Your task to perform on an android device: set the stopwatch Image 0: 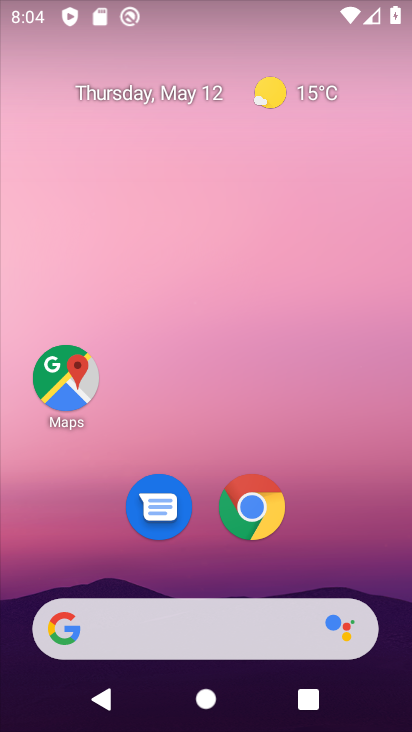
Step 0: drag from (217, 582) to (299, 162)
Your task to perform on an android device: set the stopwatch Image 1: 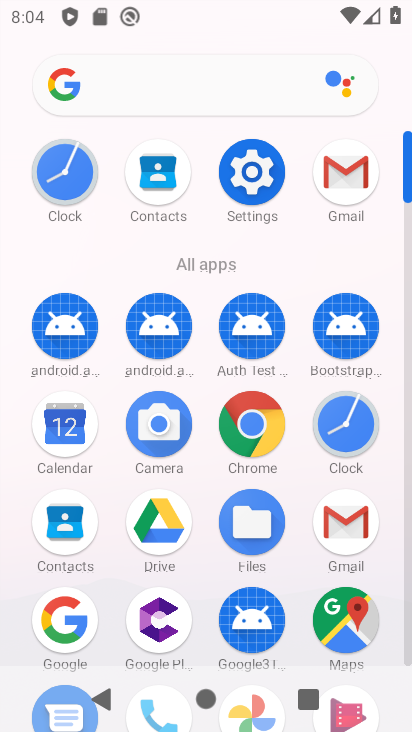
Step 1: click (346, 426)
Your task to perform on an android device: set the stopwatch Image 2: 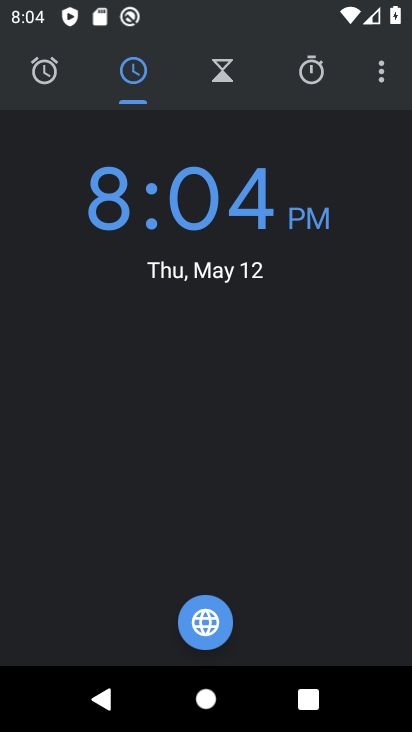
Step 2: click (303, 85)
Your task to perform on an android device: set the stopwatch Image 3: 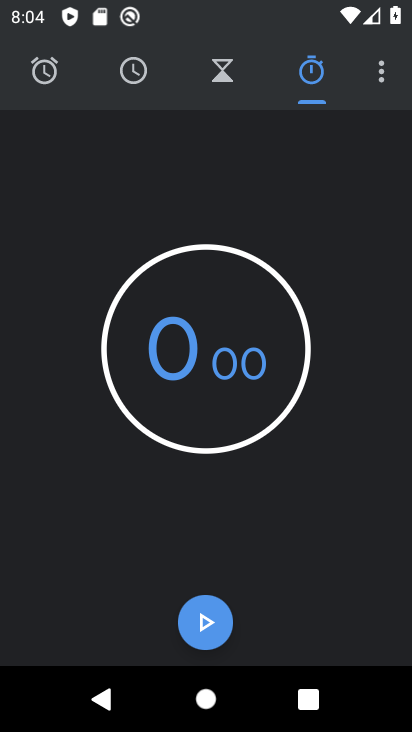
Step 3: click (200, 610)
Your task to perform on an android device: set the stopwatch Image 4: 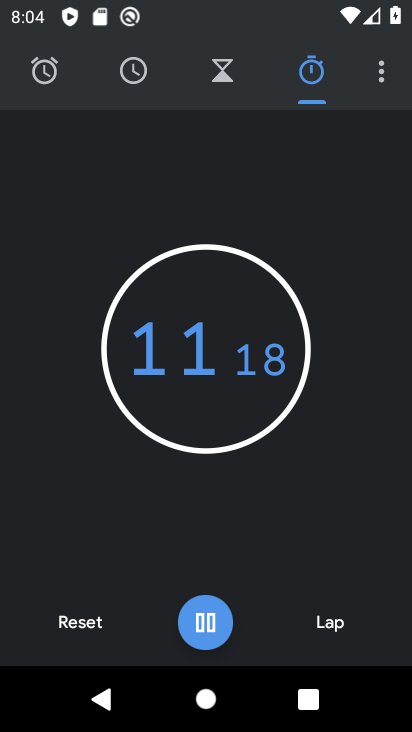
Step 4: task complete